Your task to perform on an android device: Show the shopping cart on amazon. Search for "beats solo 3" on amazon, select the first entry, add it to the cart, then select checkout. Image 0: 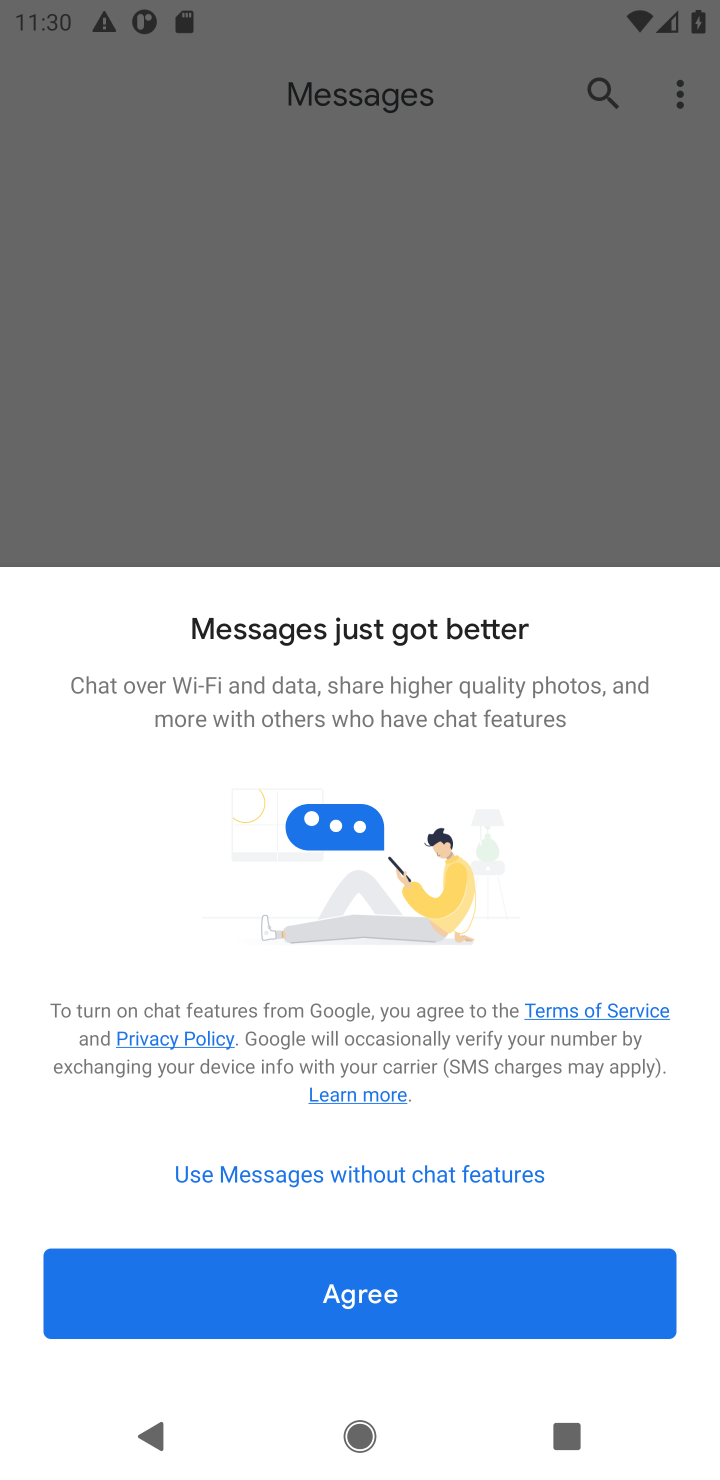
Step 0: press home button
Your task to perform on an android device: Show the shopping cart on amazon. Search for "beats solo 3" on amazon, select the first entry, add it to the cart, then select checkout. Image 1: 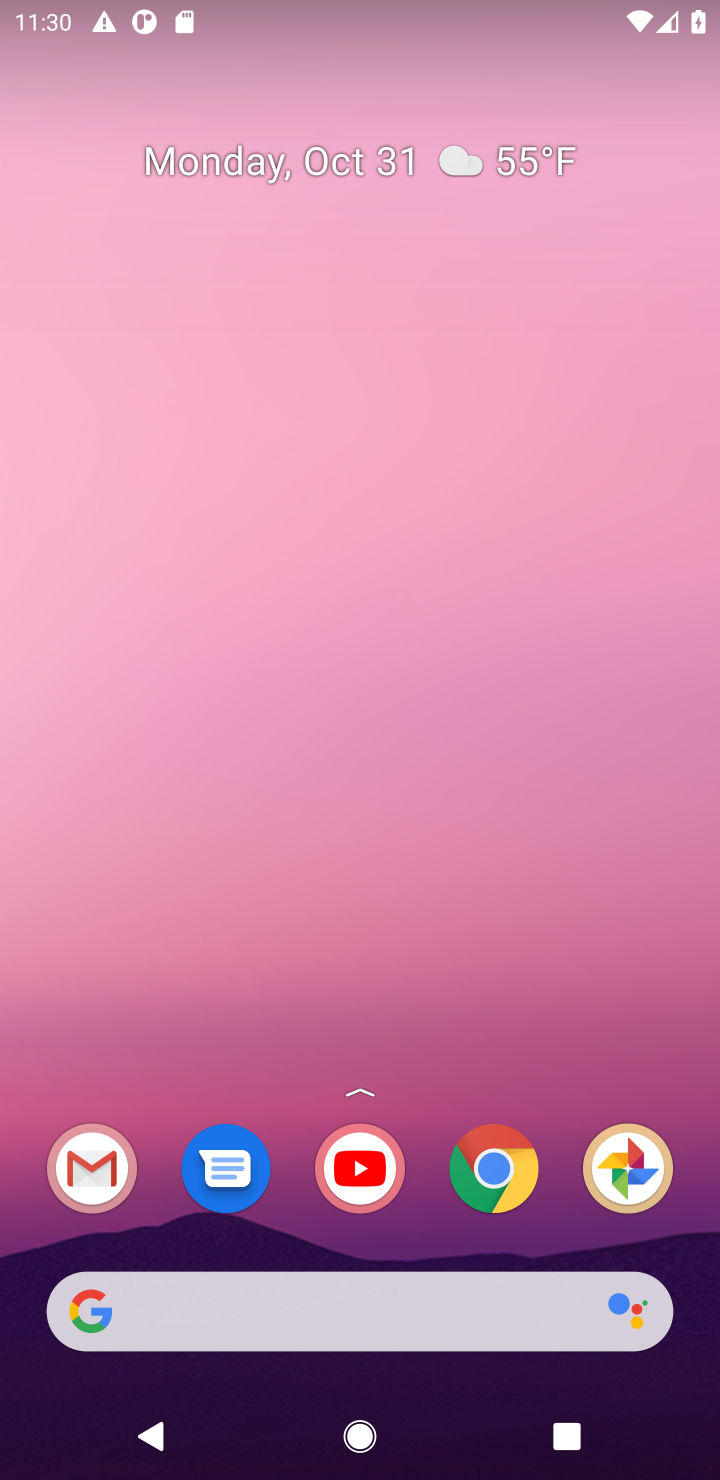
Step 1: click (501, 1149)
Your task to perform on an android device: Show the shopping cart on amazon. Search for "beats solo 3" on amazon, select the first entry, add it to the cart, then select checkout. Image 2: 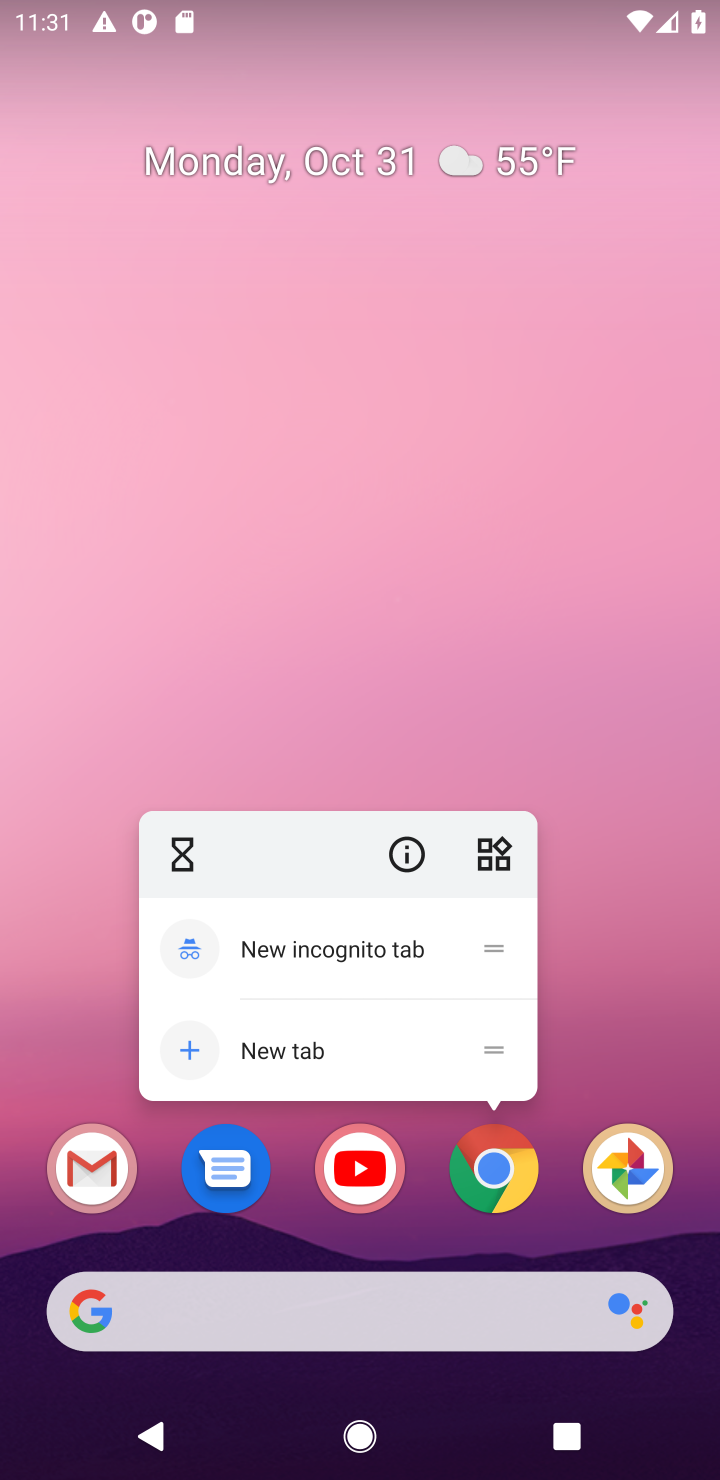
Step 2: click (500, 1186)
Your task to perform on an android device: Show the shopping cart on amazon. Search for "beats solo 3" on amazon, select the first entry, add it to the cart, then select checkout. Image 3: 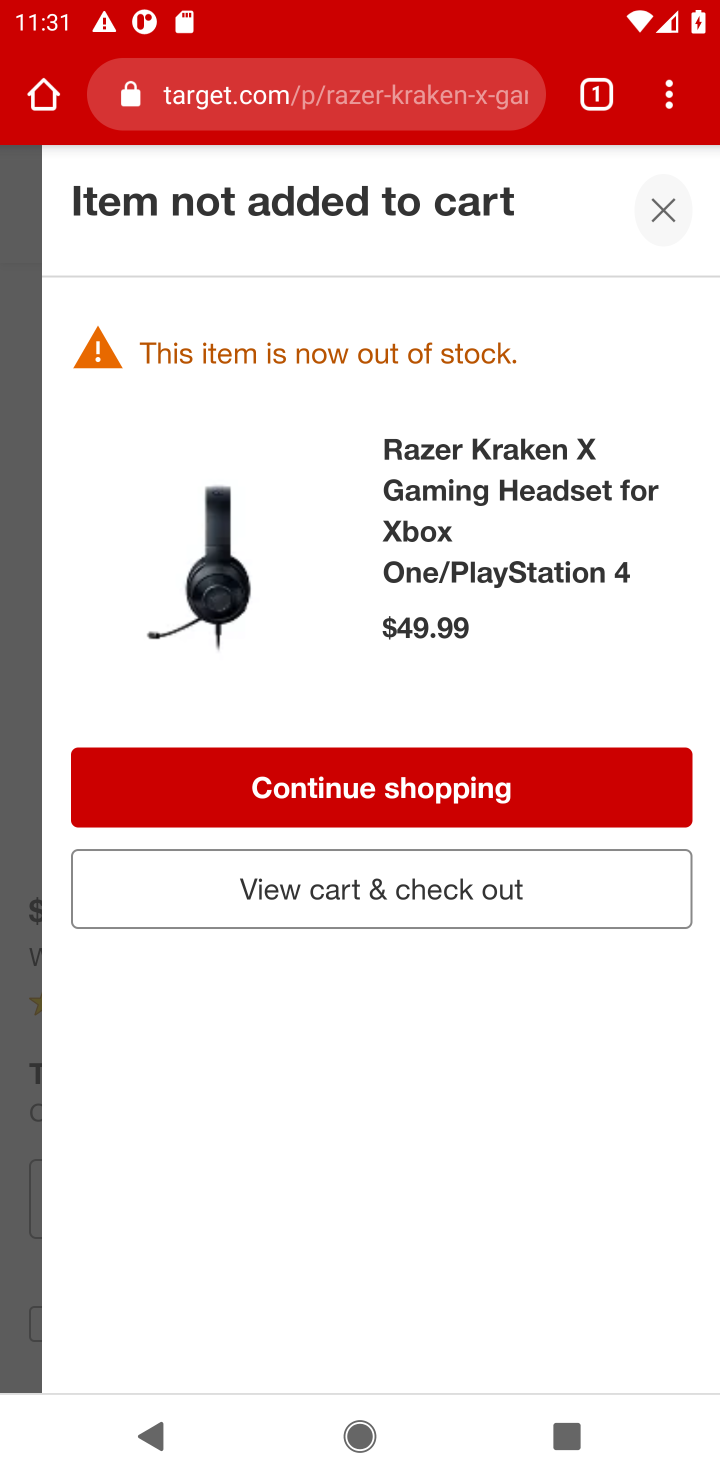
Step 3: click (316, 111)
Your task to perform on an android device: Show the shopping cart on amazon. Search for "beats solo 3" on amazon, select the first entry, add it to the cart, then select checkout. Image 4: 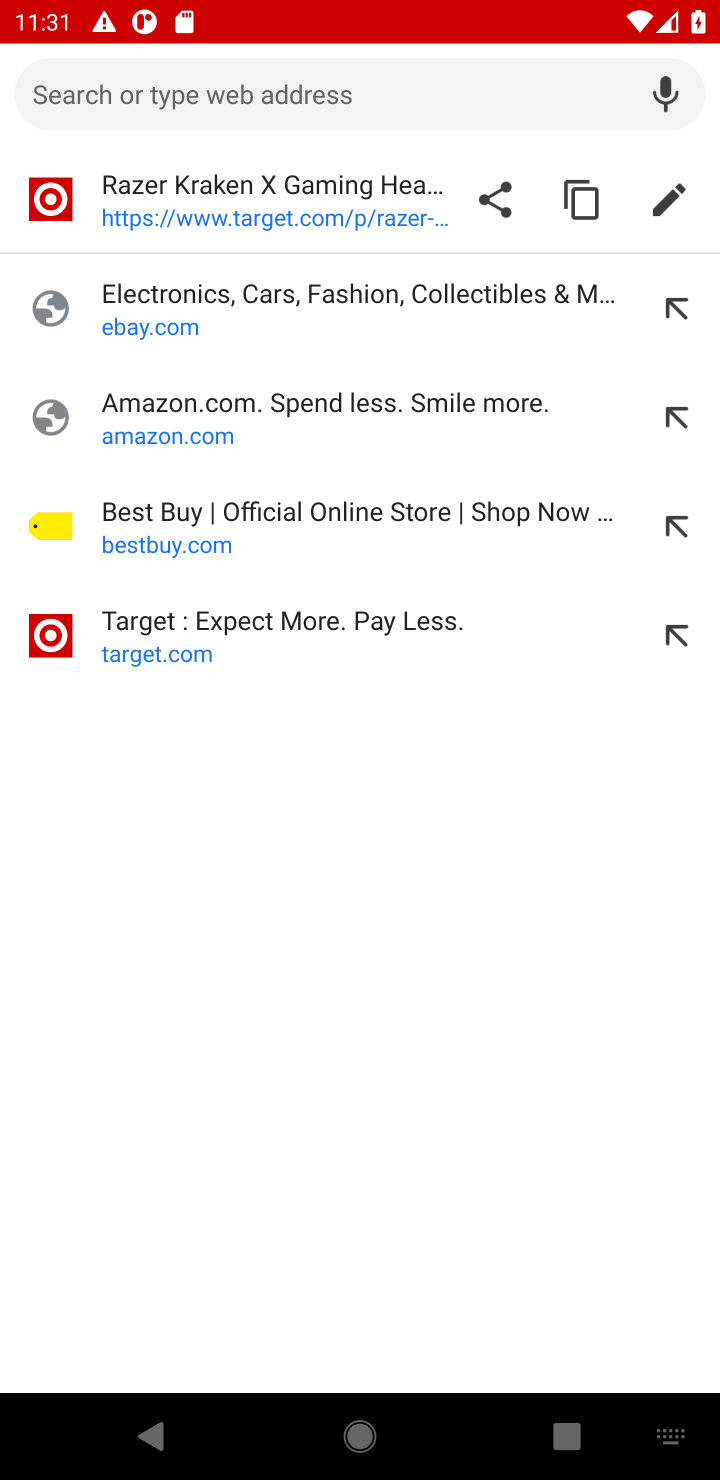
Step 4: type "amazon"
Your task to perform on an android device: Show the shopping cart on amazon. Search for "beats solo 3" on amazon, select the first entry, add it to the cart, then select checkout. Image 5: 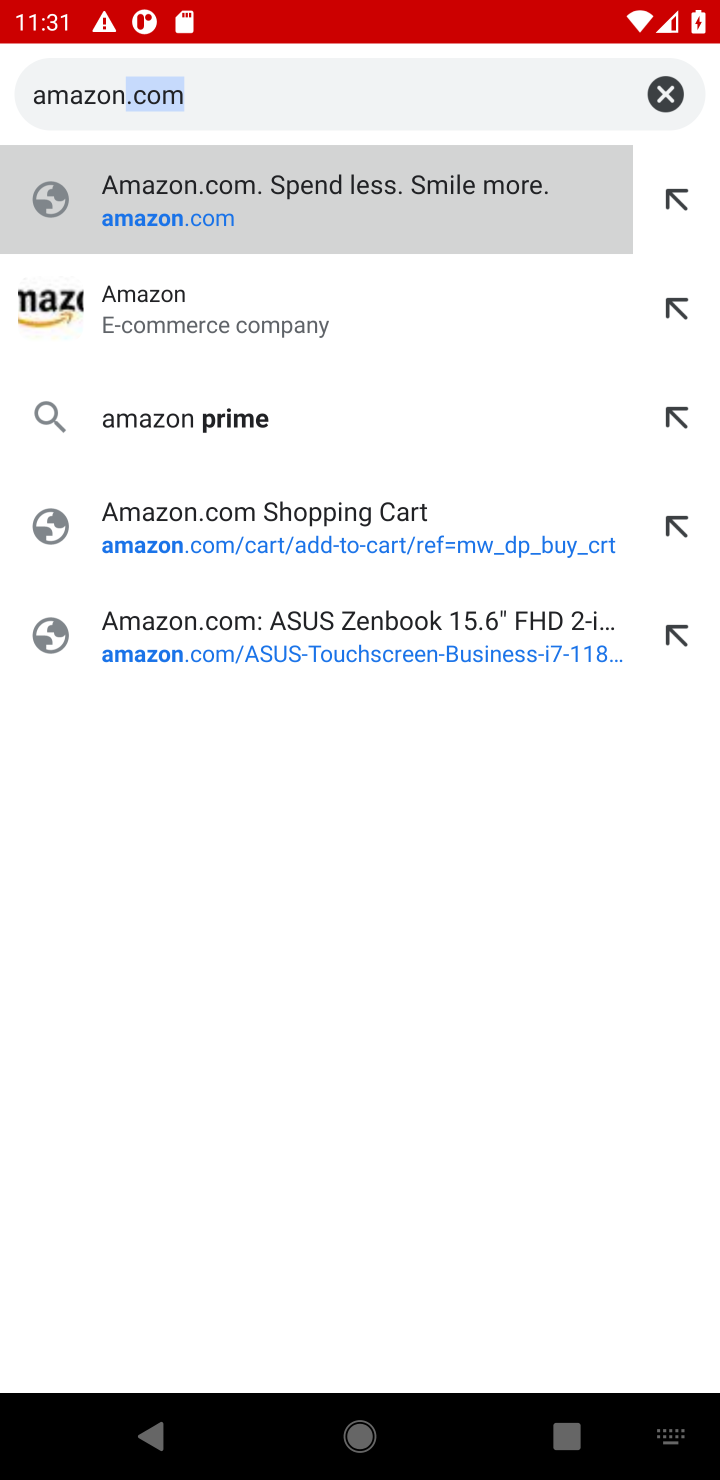
Step 5: click (418, 231)
Your task to perform on an android device: Show the shopping cart on amazon. Search for "beats solo 3" on amazon, select the first entry, add it to the cart, then select checkout. Image 6: 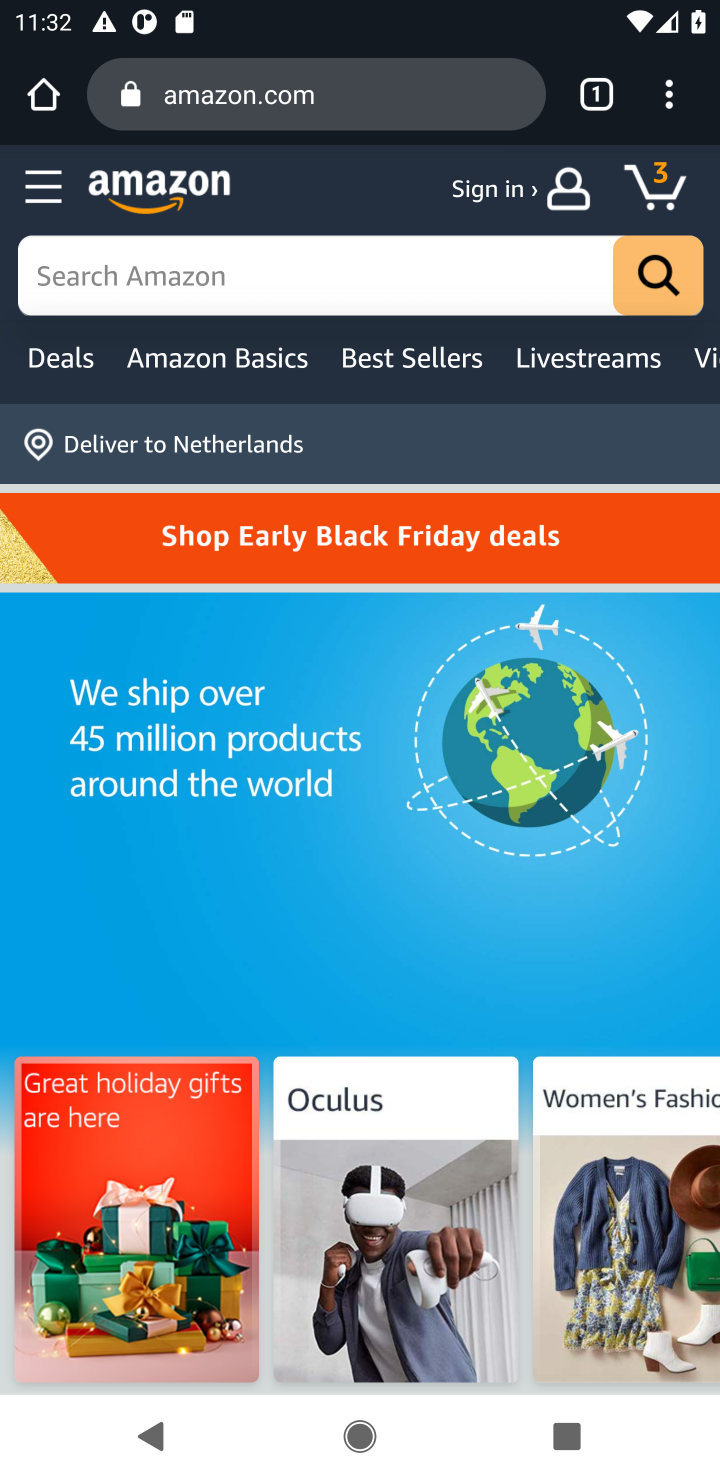
Step 6: click (652, 185)
Your task to perform on an android device: Show the shopping cart on amazon. Search for "beats solo 3" on amazon, select the first entry, add it to the cart, then select checkout. Image 7: 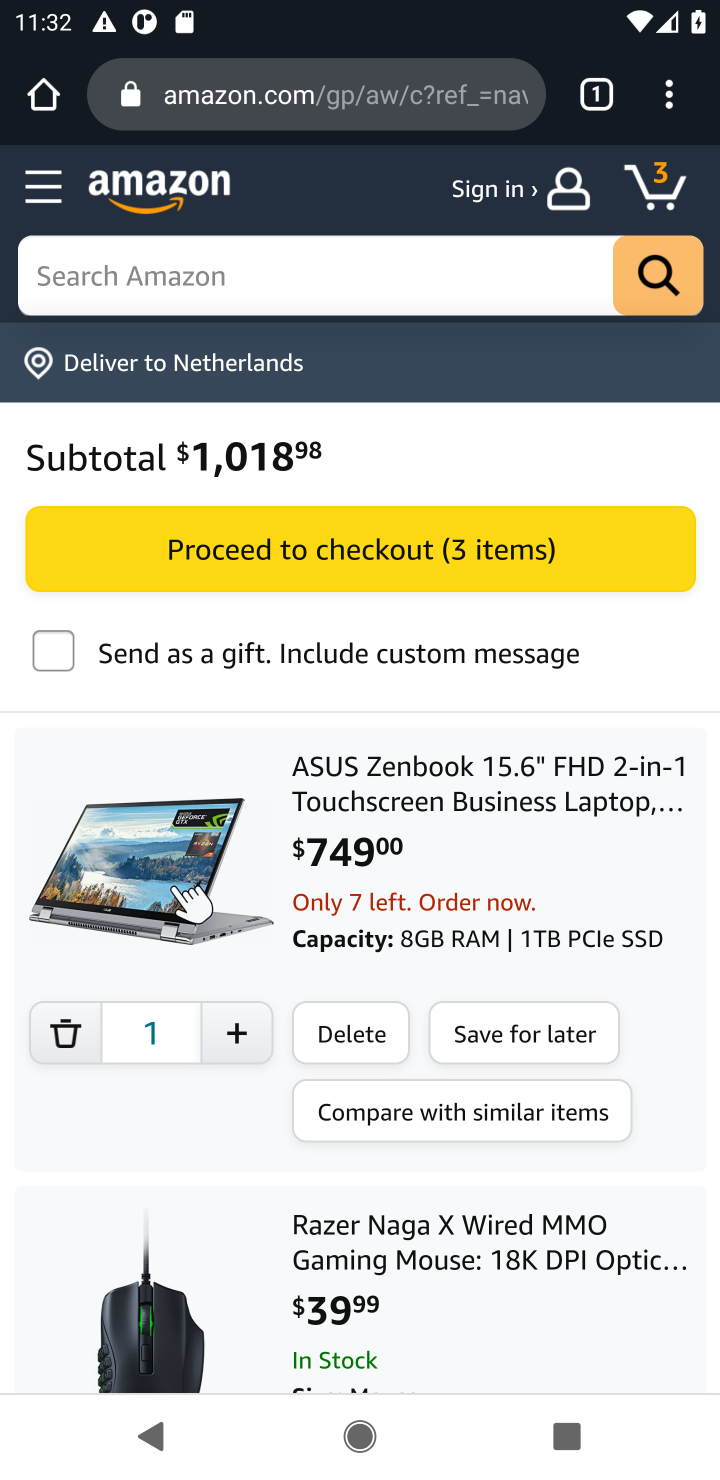
Step 7: click (191, 284)
Your task to perform on an android device: Show the shopping cart on amazon. Search for "beats solo 3" on amazon, select the first entry, add it to the cart, then select checkout. Image 8: 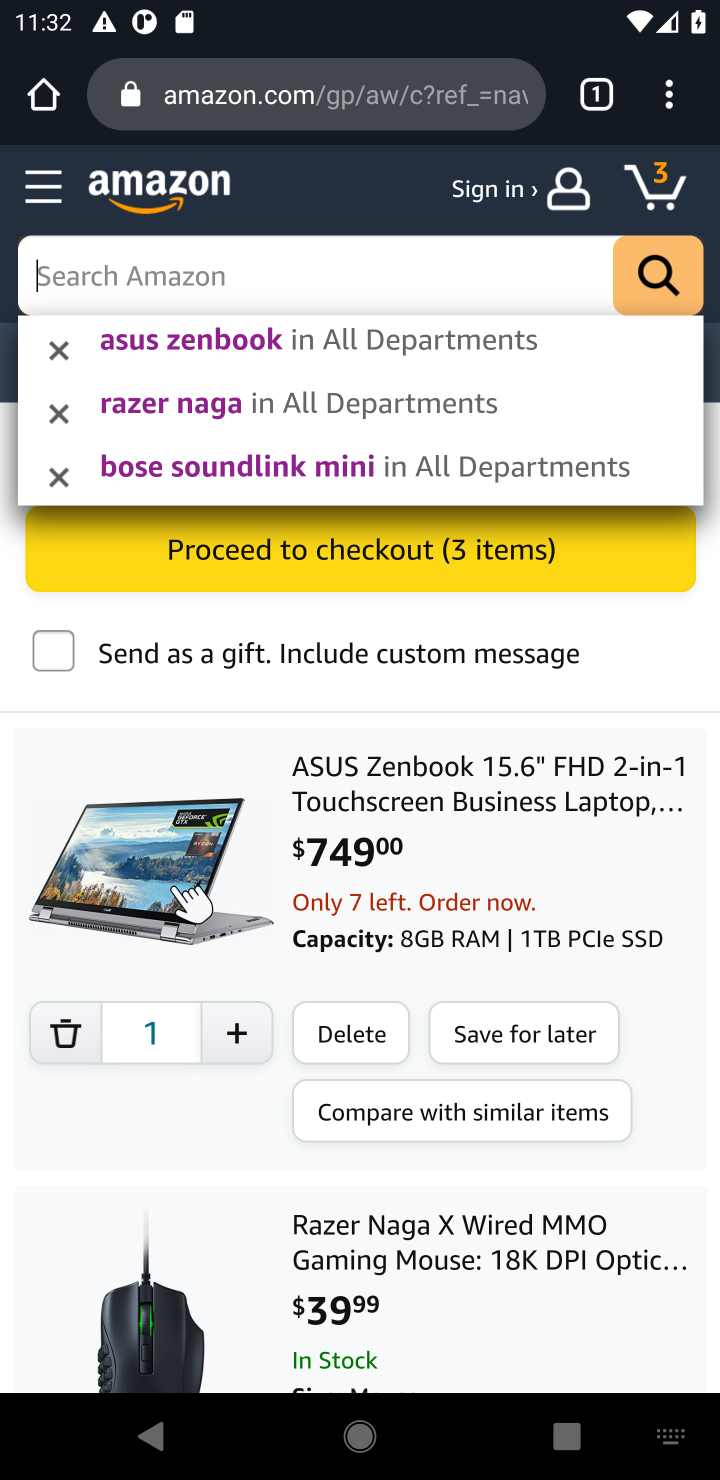
Step 8: type "beats solo 3"
Your task to perform on an android device: Show the shopping cart on amazon. Search for "beats solo 3" on amazon, select the first entry, add it to the cart, then select checkout. Image 9: 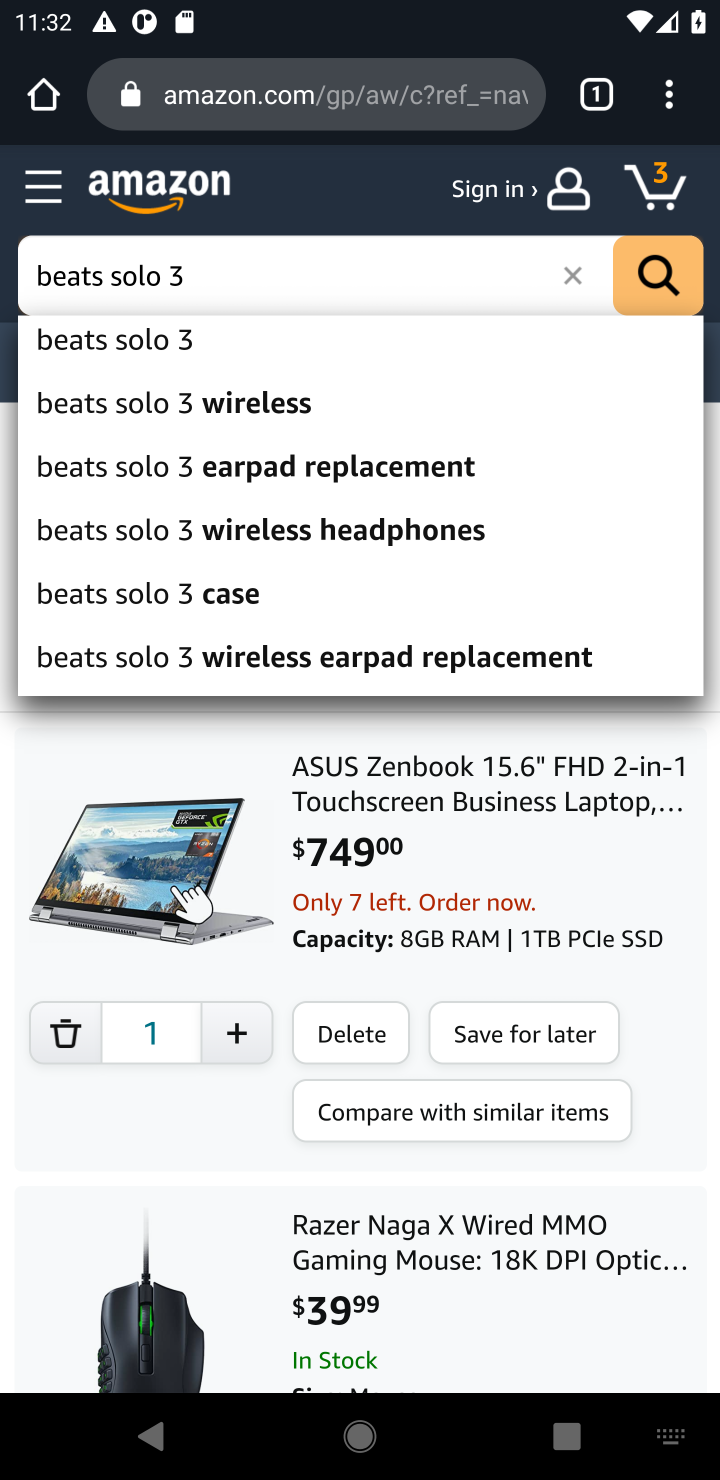
Step 9: press enter
Your task to perform on an android device: Show the shopping cart on amazon. Search for "beats solo 3" on amazon, select the first entry, add it to the cart, then select checkout. Image 10: 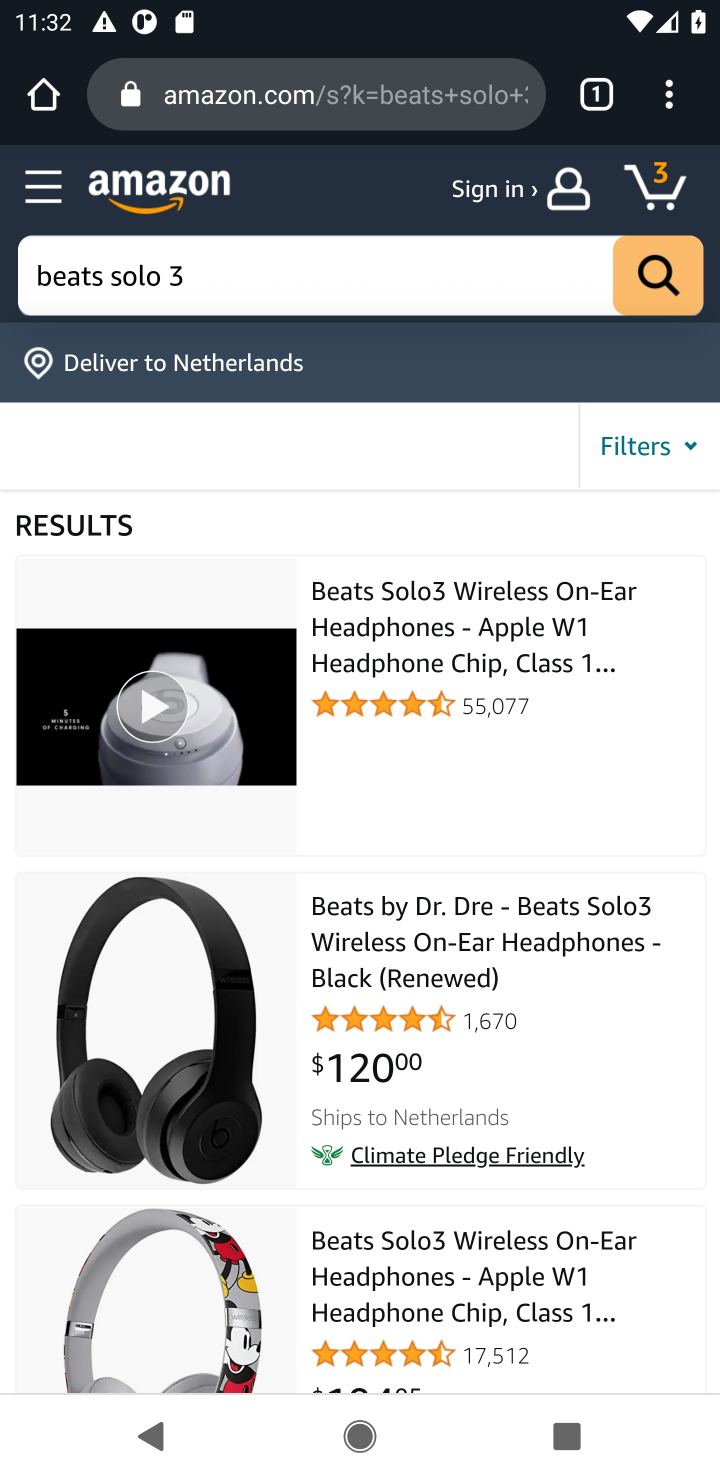
Step 10: click (454, 944)
Your task to perform on an android device: Show the shopping cart on amazon. Search for "beats solo 3" on amazon, select the first entry, add it to the cart, then select checkout. Image 11: 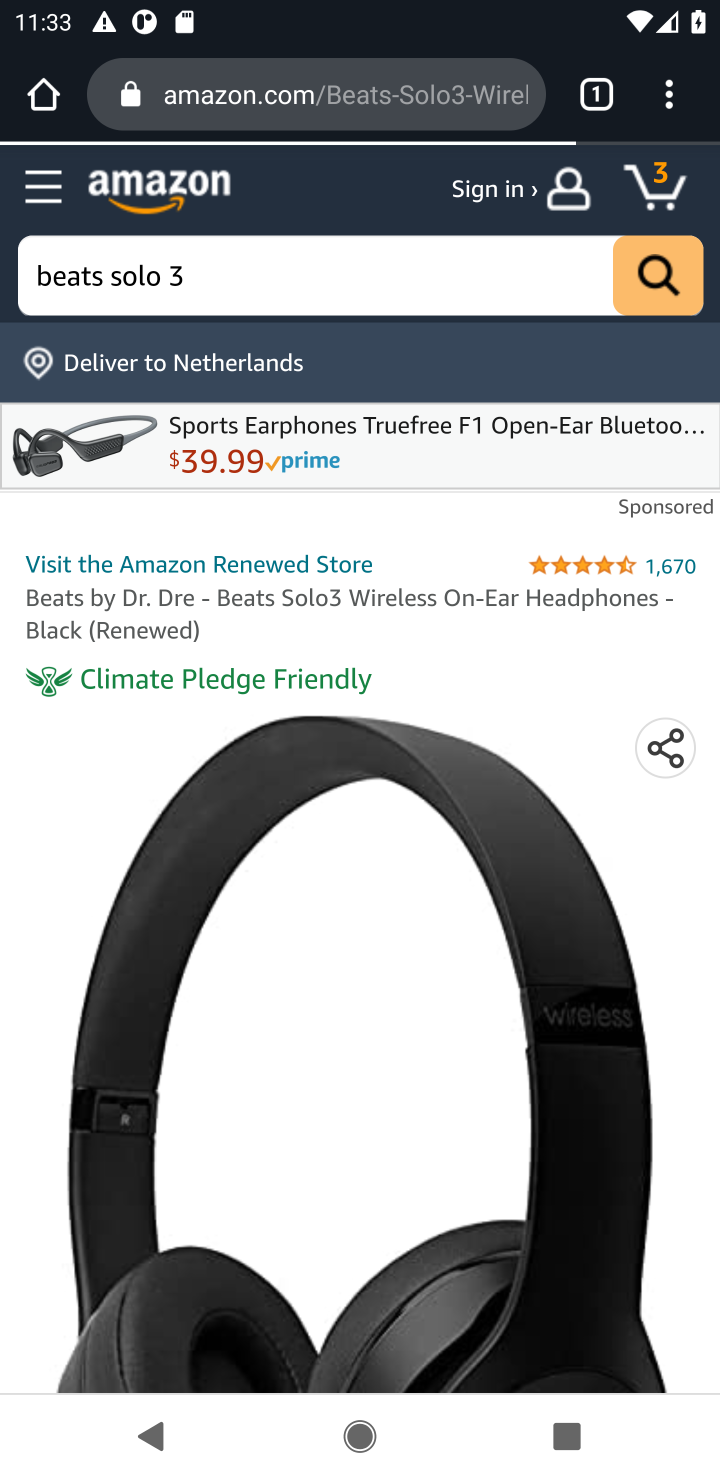
Step 11: drag from (688, 1029) to (719, 88)
Your task to perform on an android device: Show the shopping cart on amazon. Search for "beats solo 3" on amazon, select the first entry, add it to the cart, then select checkout. Image 12: 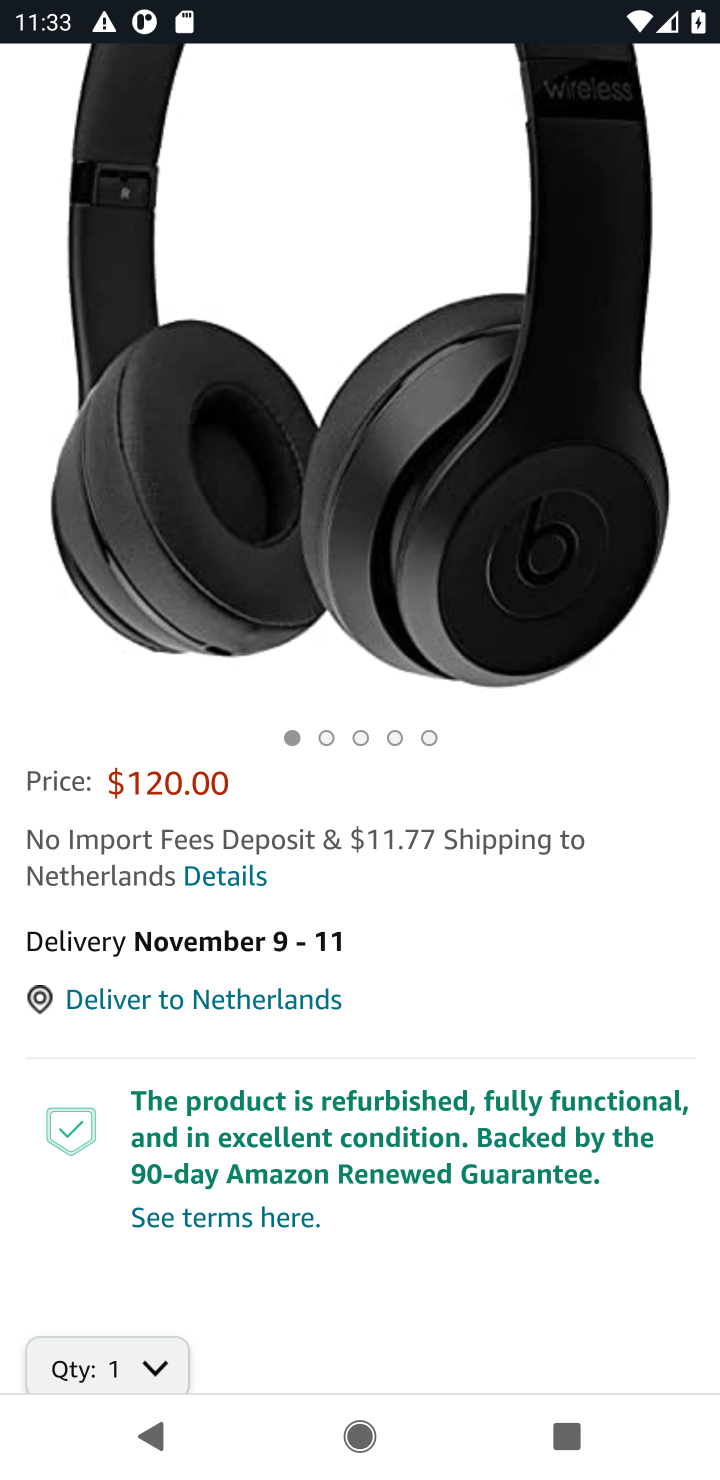
Step 12: drag from (471, 973) to (486, 511)
Your task to perform on an android device: Show the shopping cart on amazon. Search for "beats solo 3" on amazon, select the first entry, add it to the cart, then select checkout. Image 13: 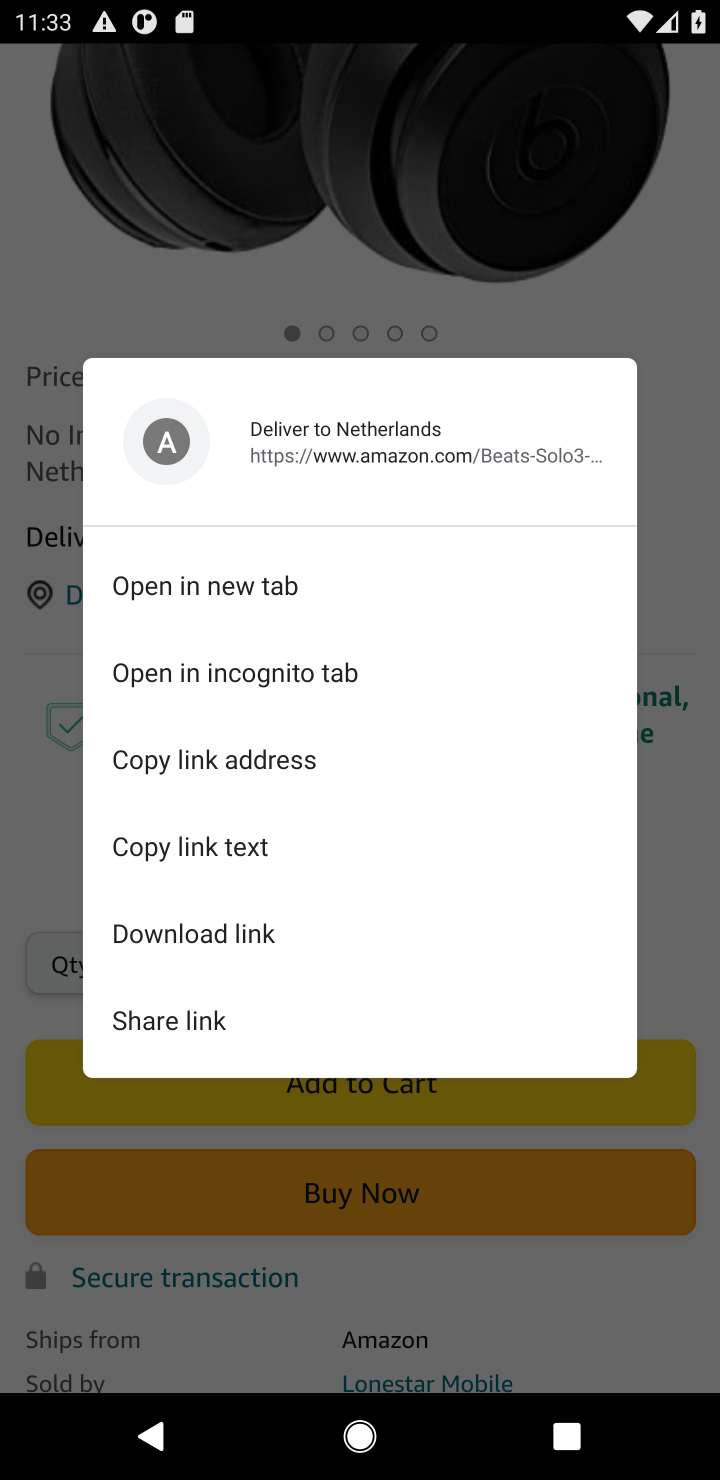
Step 13: click (651, 1091)
Your task to perform on an android device: Show the shopping cart on amazon. Search for "beats solo 3" on amazon, select the first entry, add it to the cart, then select checkout. Image 14: 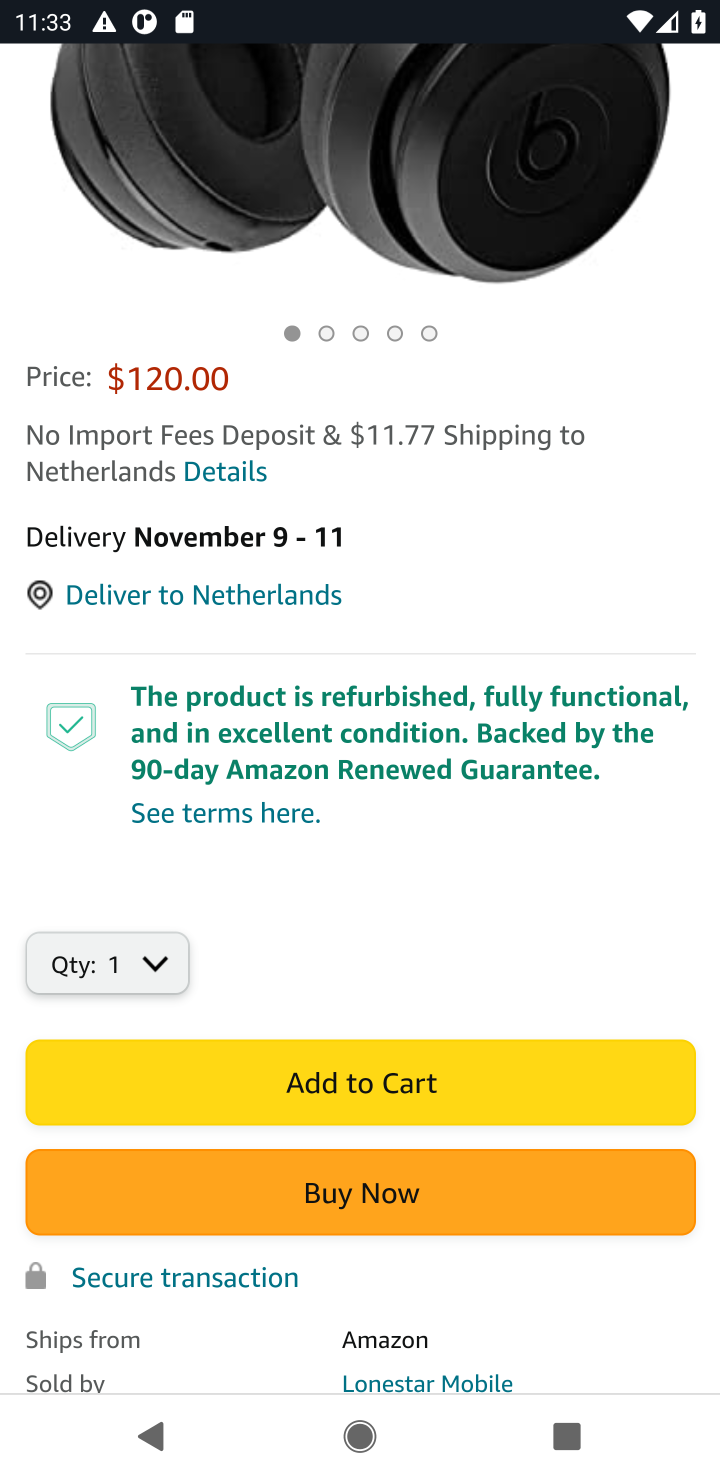
Step 14: click (400, 1083)
Your task to perform on an android device: Show the shopping cart on amazon. Search for "beats solo 3" on amazon, select the first entry, add it to the cart, then select checkout. Image 15: 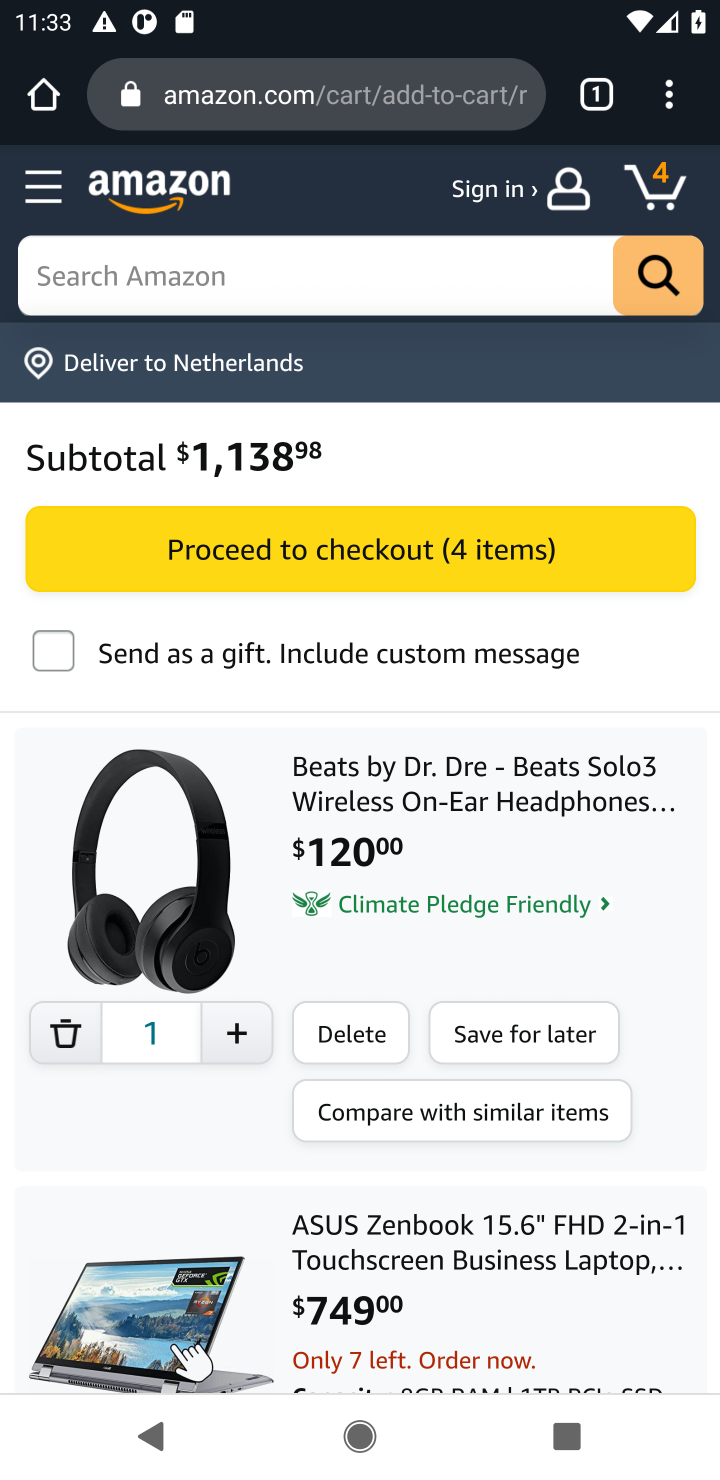
Step 15: click (419, 557)
Your task to perform on an android device: Show the shopping cart on amazon. Search for "beats solo 3" on amazon, select the first entry, add it to the cart, then select checkout. Image 16: 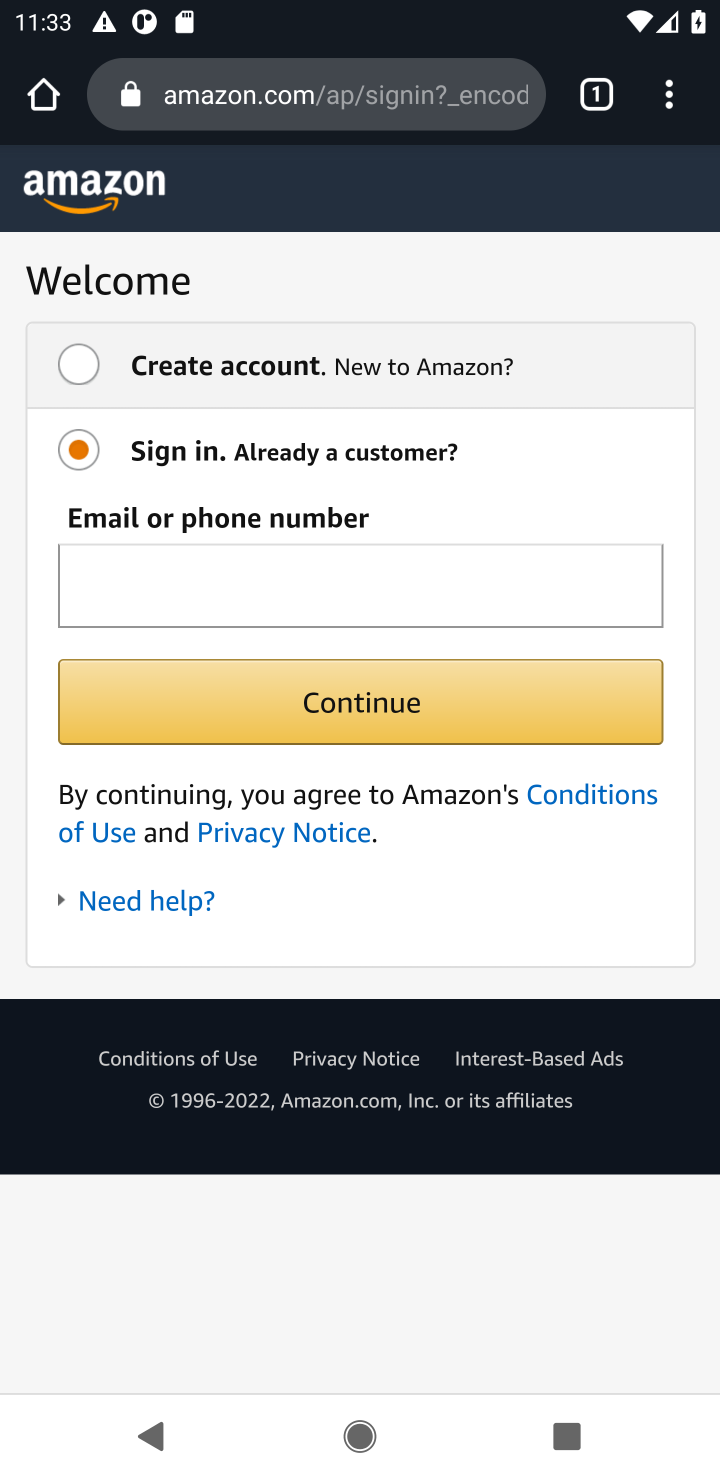
Step 16: click (153, 1436)
Your task to perform on an android device: Show the shopping cart on amazon. Search for "beats solo 3" on amazon, select the first entry, add it to the cart, then select checkout. Image 17: 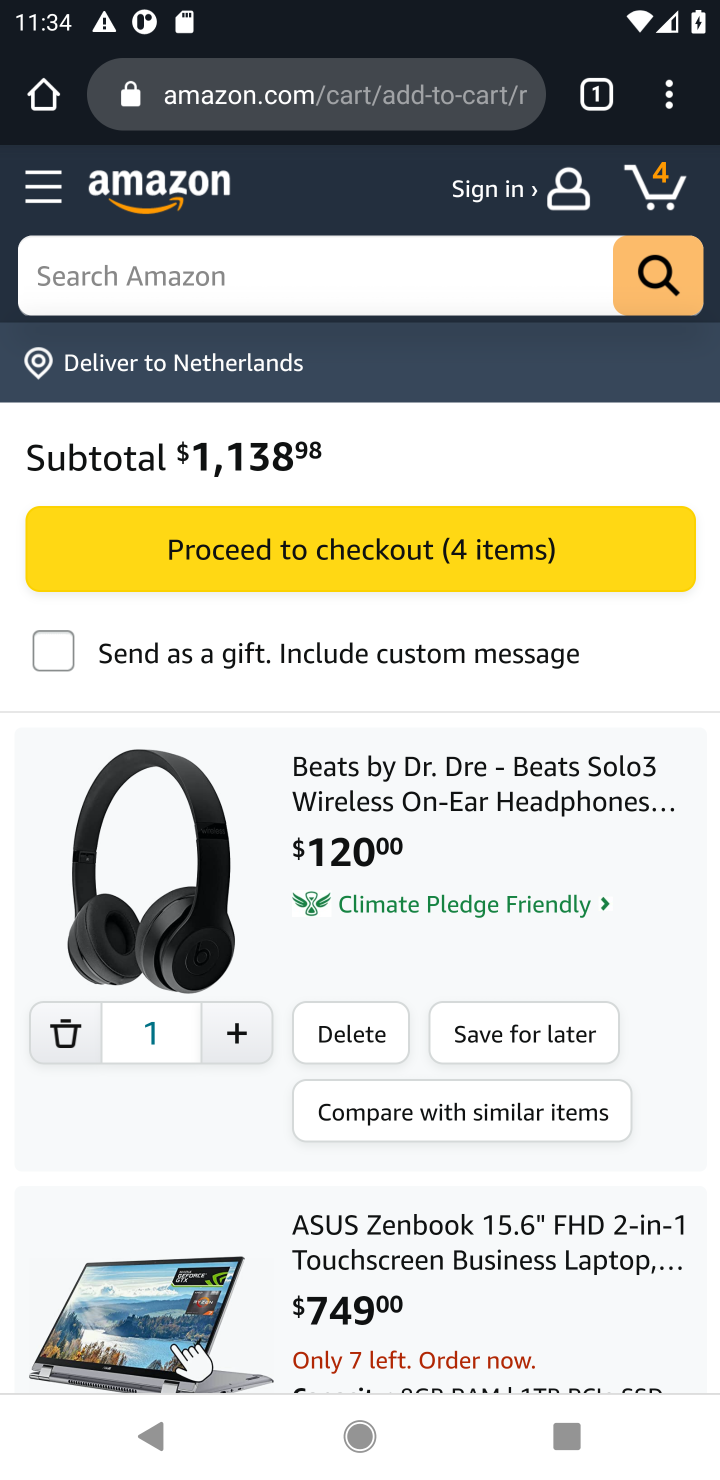
Step 17: task complete